Your task to perform on an android device: search for starred emails in the gmail app Image 0: 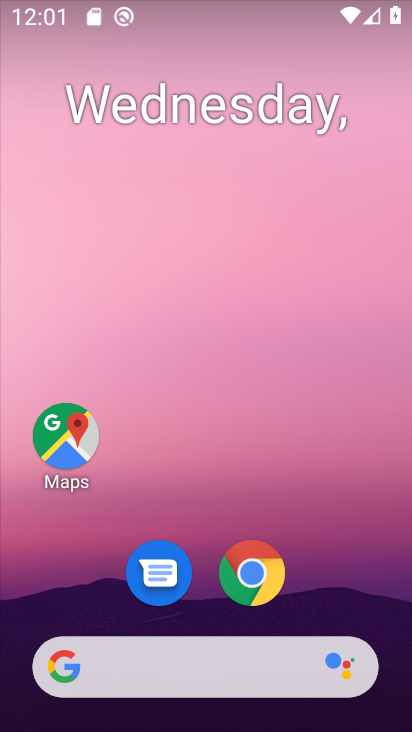
Step 0: drag from (311, 718) to (211, 37)
Your task to perform on an android device: search for starred emails in the gmail app Image 1: 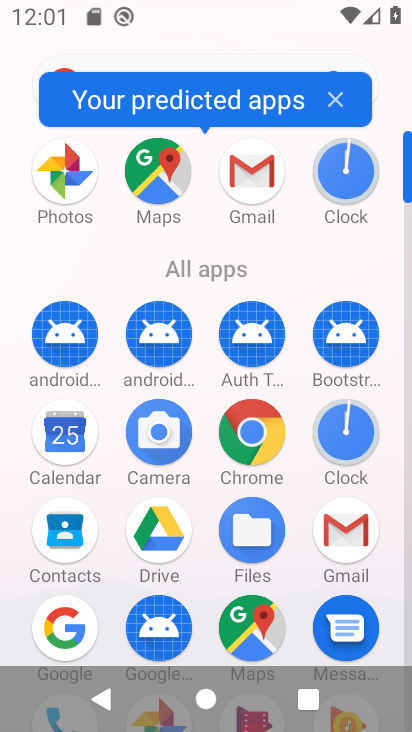
Step 1: click (332, 526)
Your task to perform on an android device: search for starred emails in the gmail app Image 2: 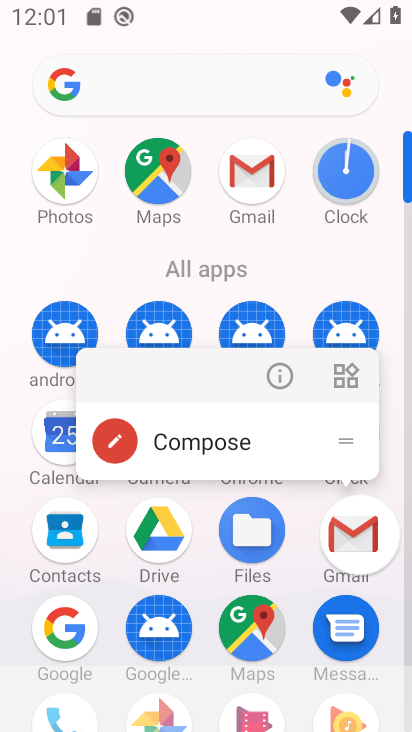
Step 2: click (349, 535)
Your task to perform on an android device: search for starred emails in the gmail app Image 3: 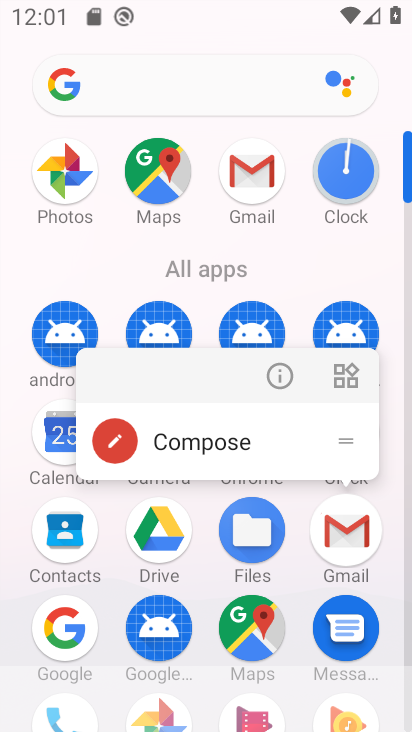
Step 3: click (349, 535)
Your task to perform on an android device: search for starred emails in the gmail app Image 4: 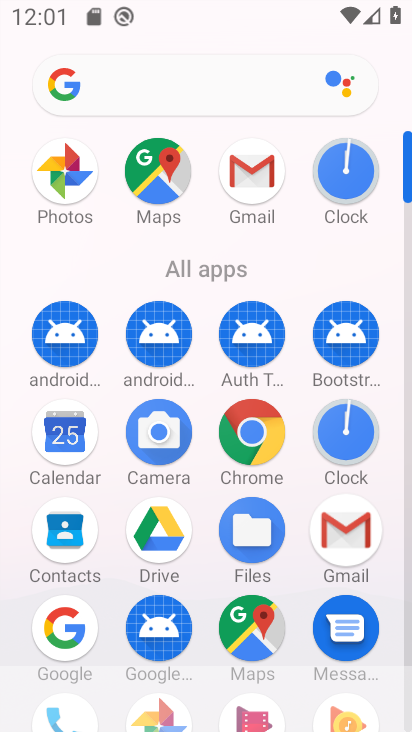
Step 4: click (347, 529)
Your task to perform on an android device: search for starred emails in the gmail app Image 5: 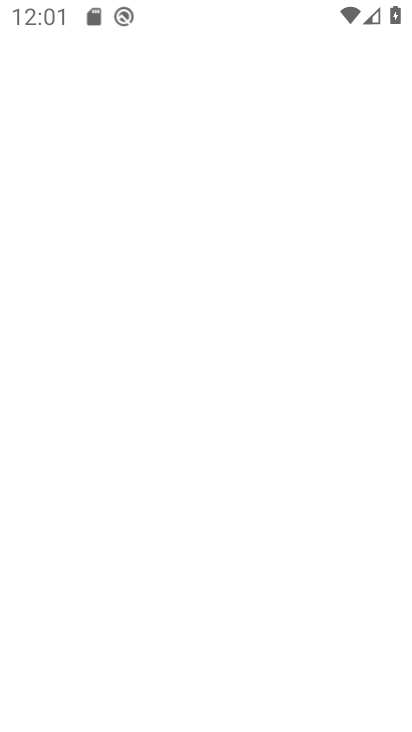
Step 5: click (343, 529)
Your task to perform on an android device: search for starred emails in the gmail app Image 6: 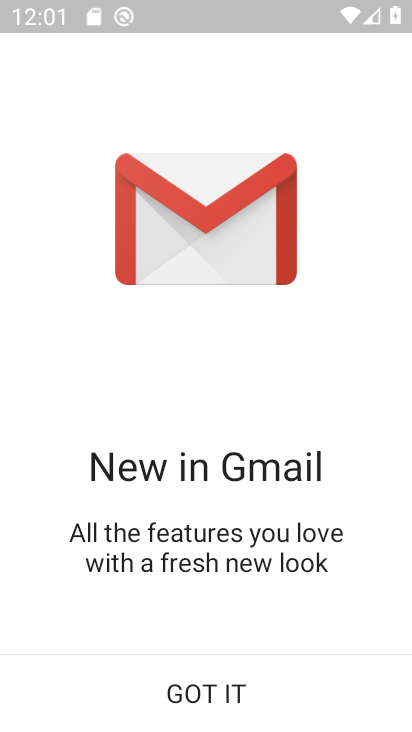
Step 6: click (206, 689)
Your task to perform on an android device: search for starred emails in the gmail app Image 7: 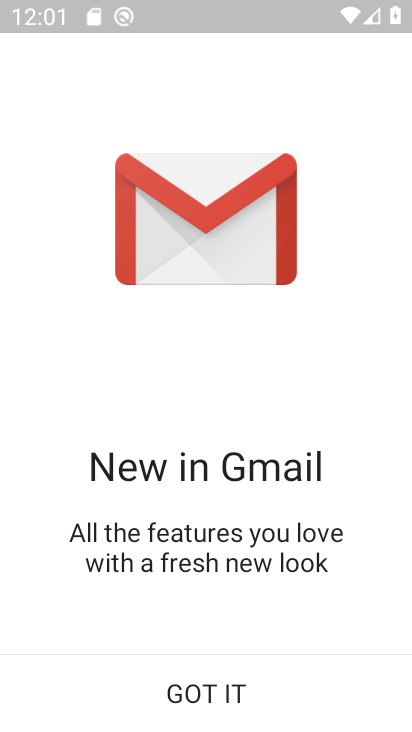
Step 7: click (202, 693)
Your task to perform on an android device: search for starred emails in the gmail app Image 8: 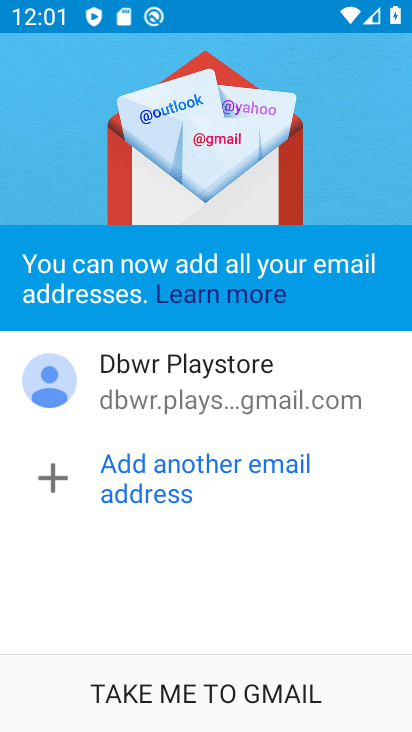
Step 8: click (195, 687)
Your task to perform on an android device: search for starred emails in the gmail app Image 9: 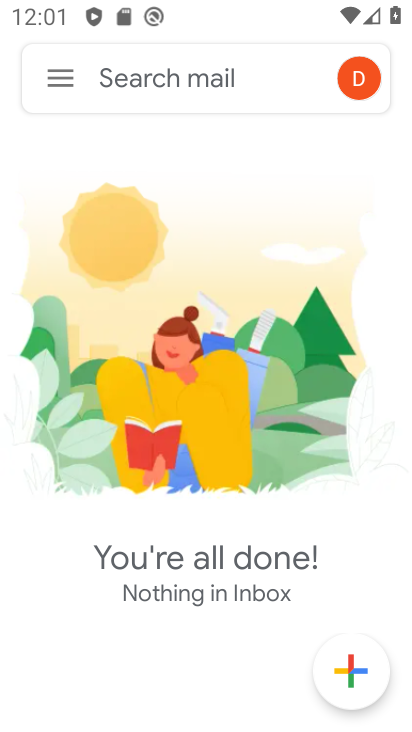
Step 9: click (61, 75)
Your task to perform on an android device: search for starred emails in the gmail app Image 10: 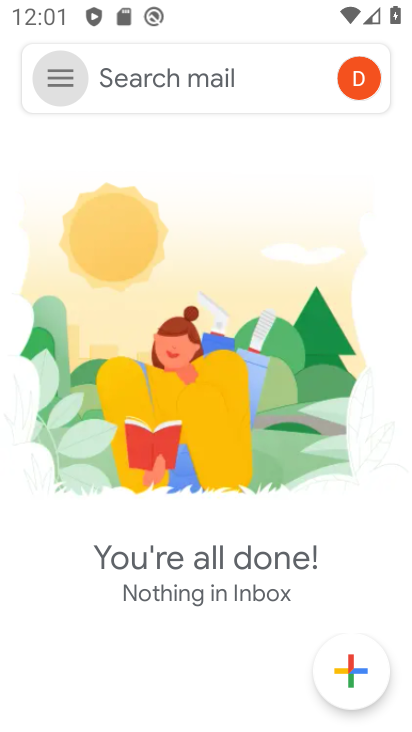
Step 10: drag from (61, 75) to (20, 283)
Your task to perform on an android device: search for starred emails in the gmail app Image 11: 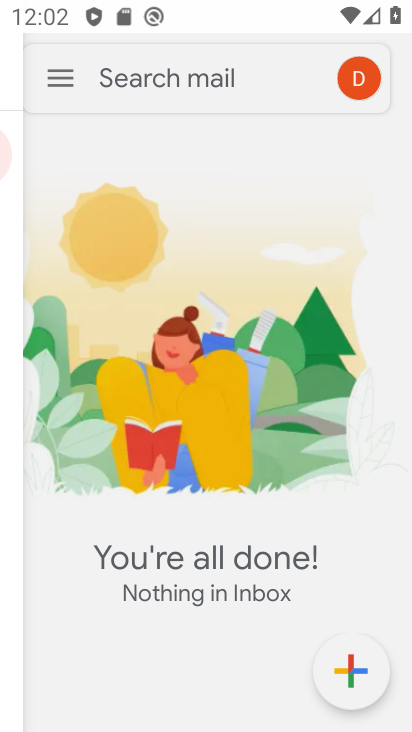
Step 11: click (23, 278)
Your task to perform on an android device: search for starred emails in the gmail app Image 12: 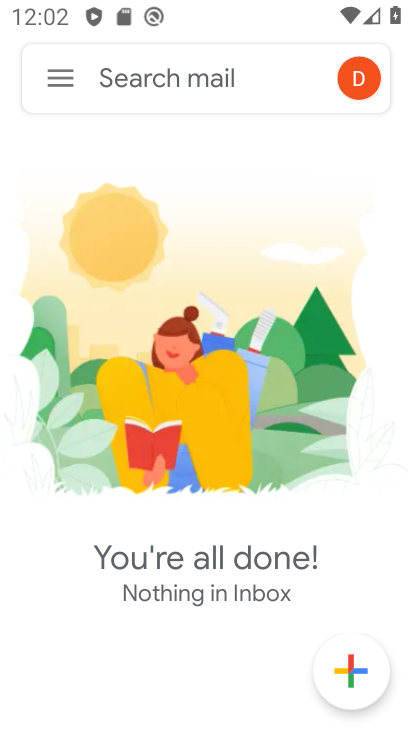
Step 12: click (61, 82)
Your task to perform on an android device: search for starred emails in the gmail app Image 13: 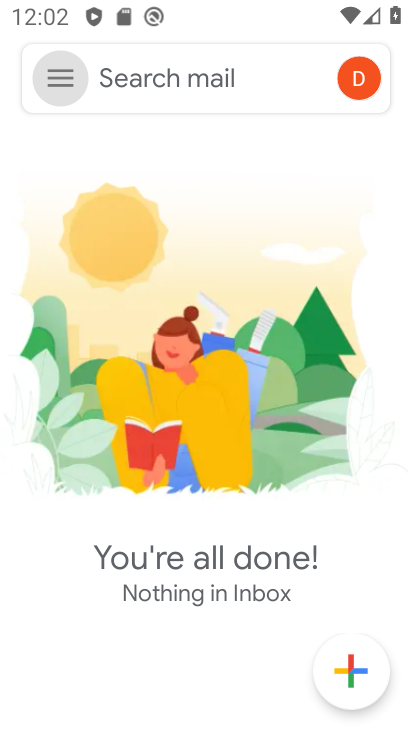
Step 13: click (65, 80)
Your task to perform on an android device: search for starred emails in the gmail app Image 14: 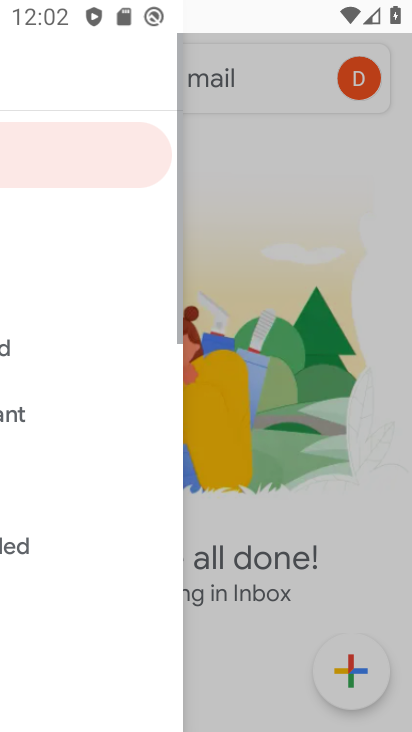
Step 14: click (65, 80)
Your task to perform on an android device: search for starred emails in the gmail app Image 15: 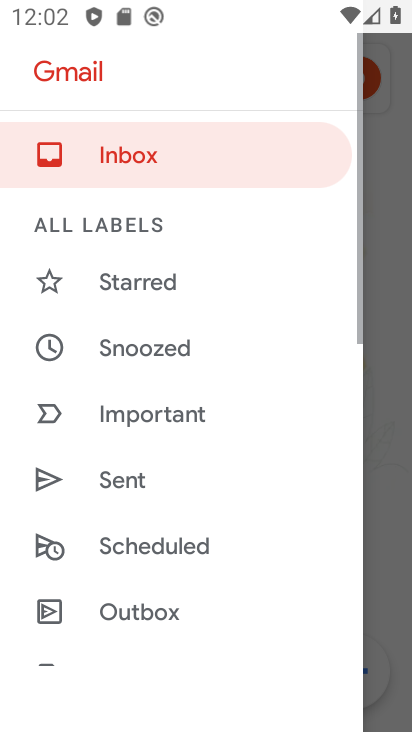
Step 15: click (147, 280)
Your task to perform on an android device: search for starred emails in the gmail app Image 16: 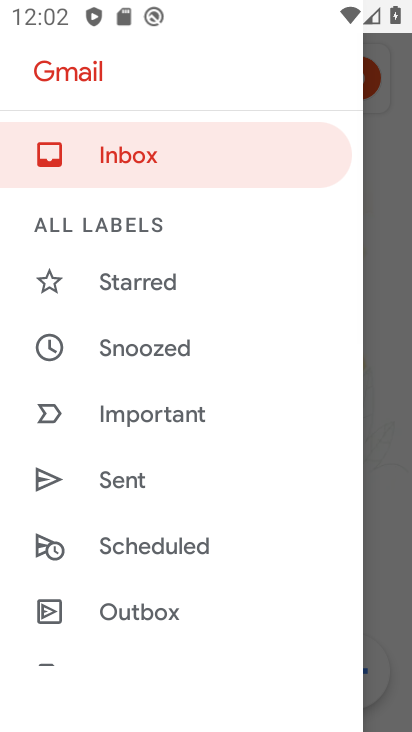
Step 16: click (146, 279)
Your task to perform on an android device: search for starred emails in the gmail app Image 17: 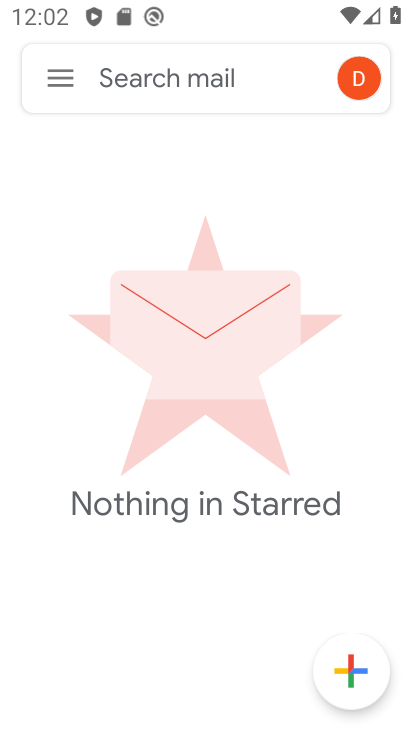
Step 17: task complete